Your task to perform on an android device: Open battery settings Image 0: 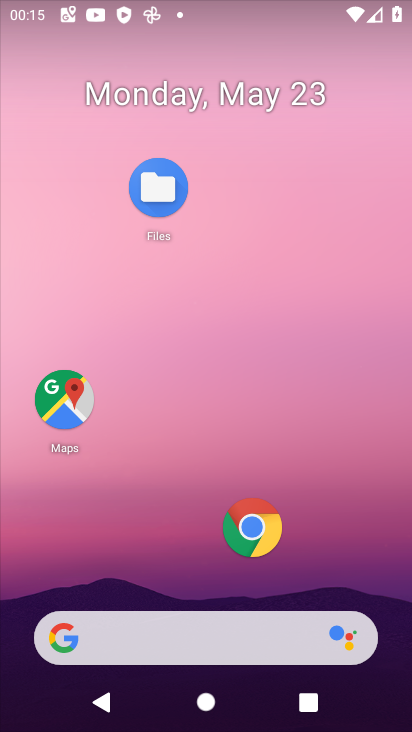
Step 0: drag from (147, 553) to (151, 173)
Your task to perform on an android device: Open battery settings Image 1: 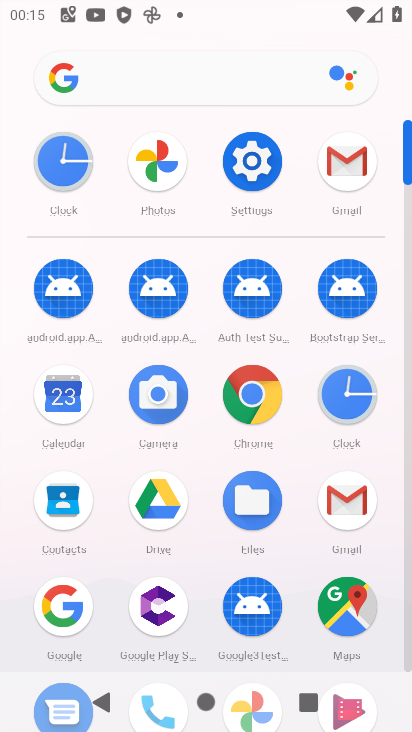
Step 1: click (244, 159)
Your task to perform on an android device: Open battery settings Image 2: 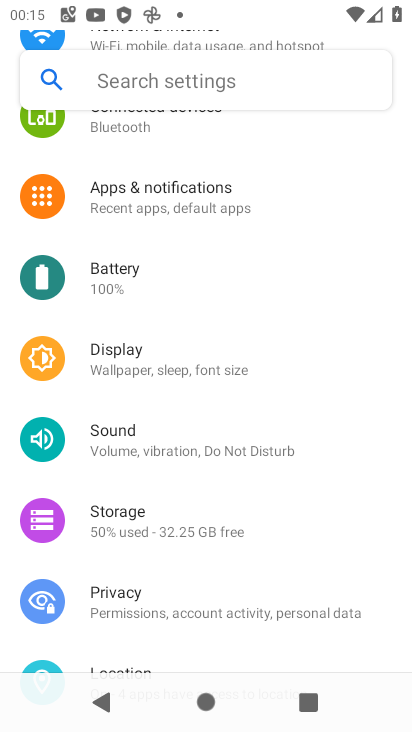
Step 2: click (122, 267)
Your task to perform on an android device: Open battery settings Image 3: 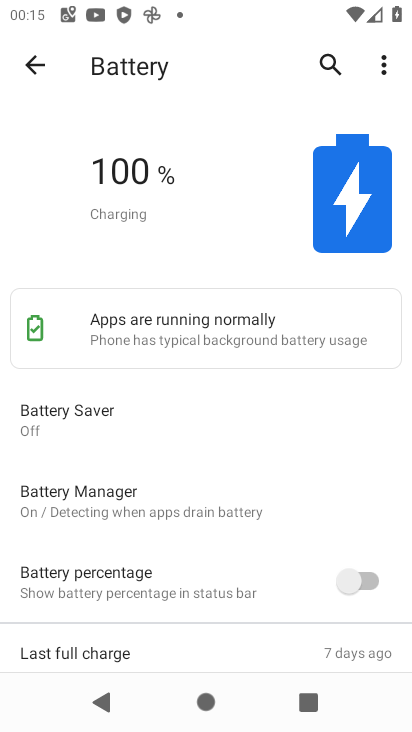
Step 3: task complete